Your task to perform on an android device: turn pop-ups on in chrome Image 0: 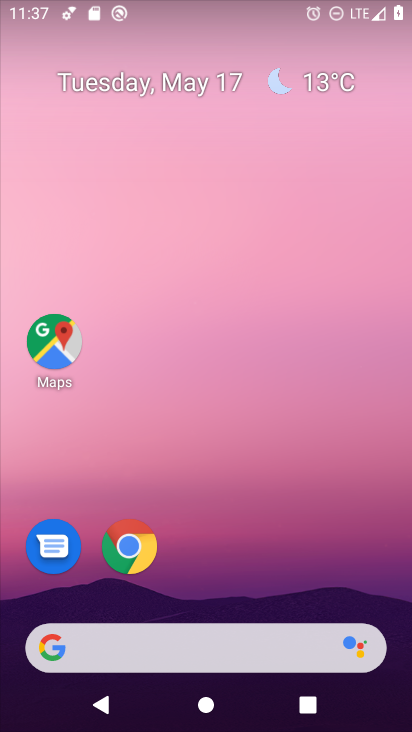
Step 0: click (133, 552)
Your task to perform on an android device: turn pop-ups on in chrome Image 1: 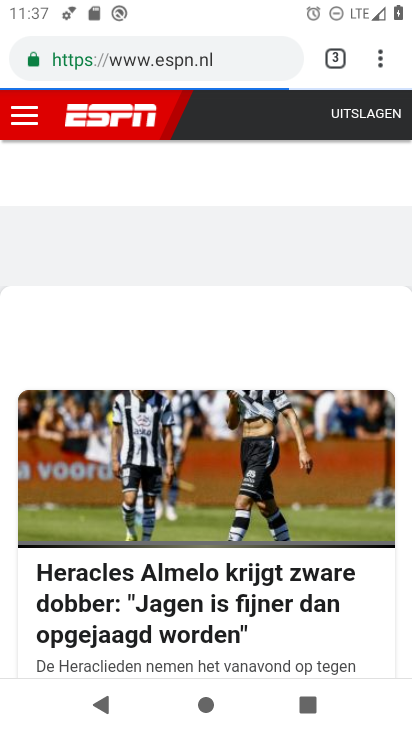
Step 1: drag from (379, 61) to (185, 580)
Your task to perform on an android device: turn pop-ups on in chrome Image 2: 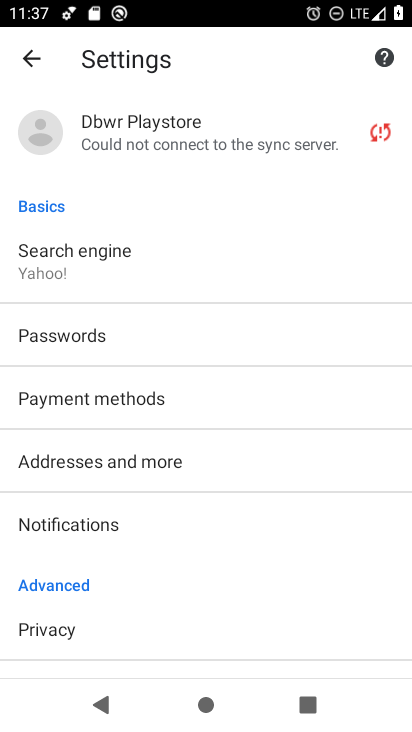
Step 2: drag from (185, 580) to (147, 237)
Your task to perform on an android device: turn pop-ups on in chrome Image 3: 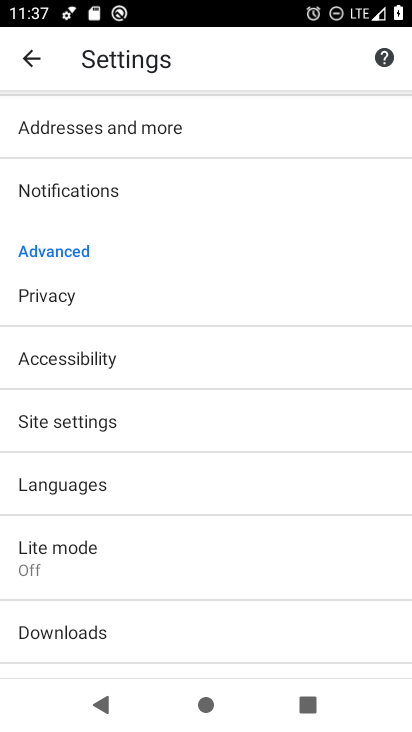
Step 3: click (80, 421)
Your task to perform on an android device: turn pop-ups on in chrome Image 4: 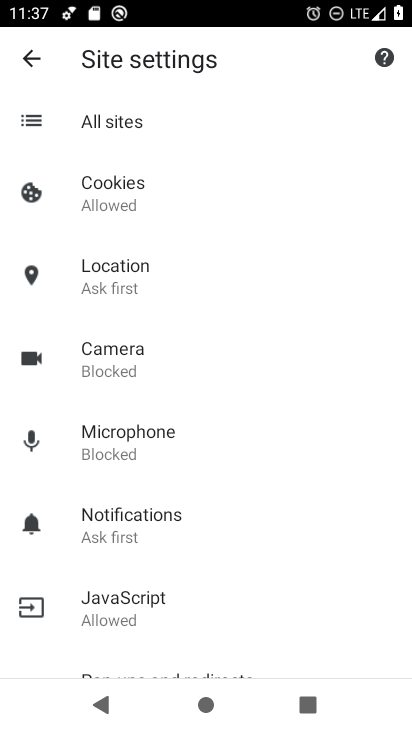
Step 4: drag from (199, 619) to (207, 400)
Your task to perform on an android device: turn pop-ups on in chrome Image 5: 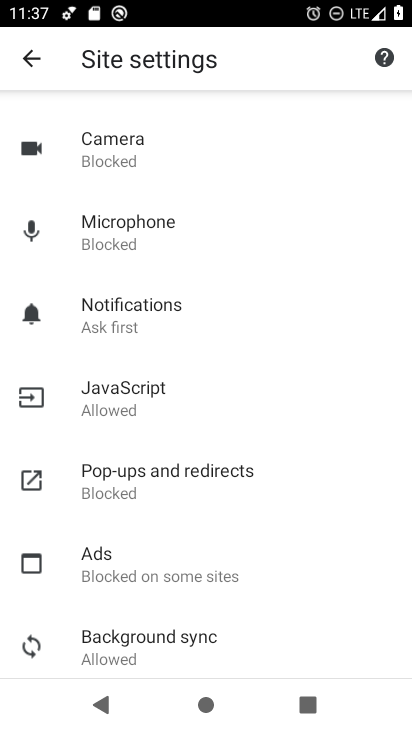
Step 5: click (133, 478)
Your task to perform on an android device: turn pop-ups on in chrome Image 6: 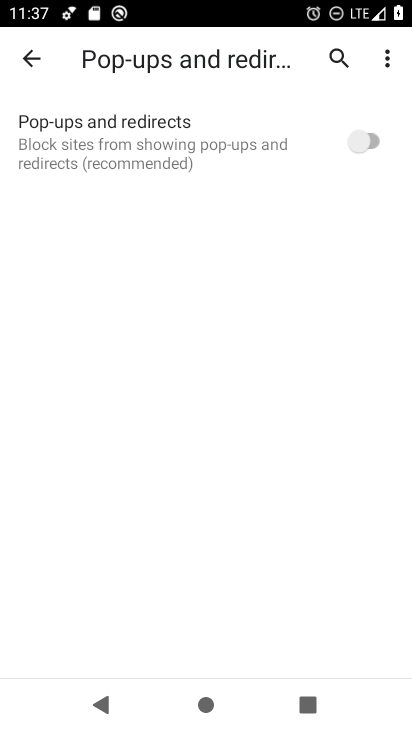
Step 6: click (356, 153)
Your task to perform on an android device: turn pop-ups on in chrome Image 7: 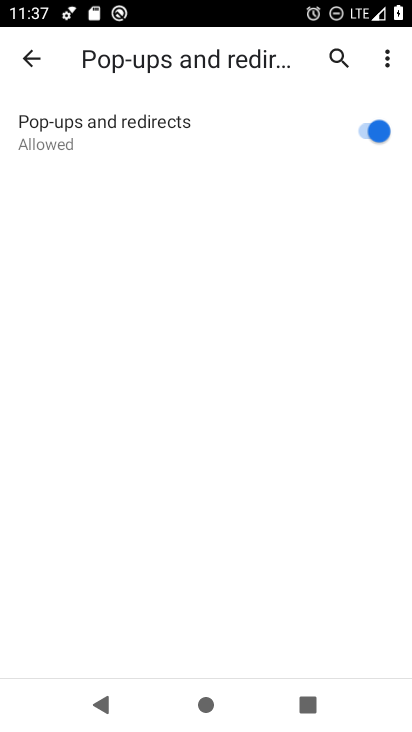
Step 7: task complete